Your task to perform on an android device: Search for "asus zenbook" on bestbuy.com, select the first entry, add it to the cart, then select checkout. Image 0: 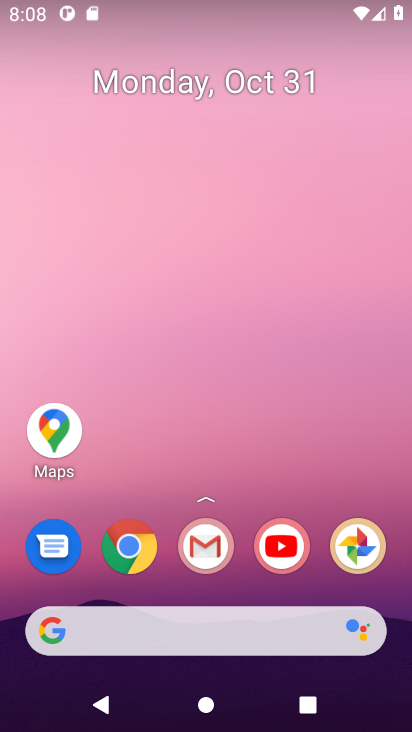
Step 0: click (128, 545)
Your task to perform on an android device: Search for "asus zenbook" on bestbuy.com, select the first entry, add it to the cart, then select checkout. Image 1: 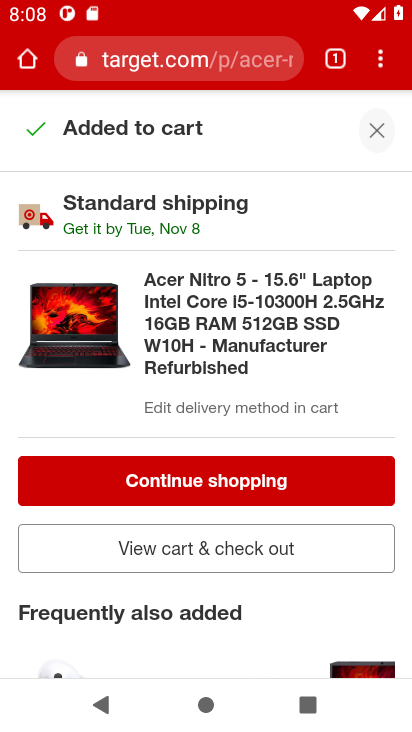
Step 1: click (187, 38)
Your task to perform on an android device: Search for "asus zenbook" on bestbuy.com, select the first entry, add it to the cart, then select checkout. Image 2: 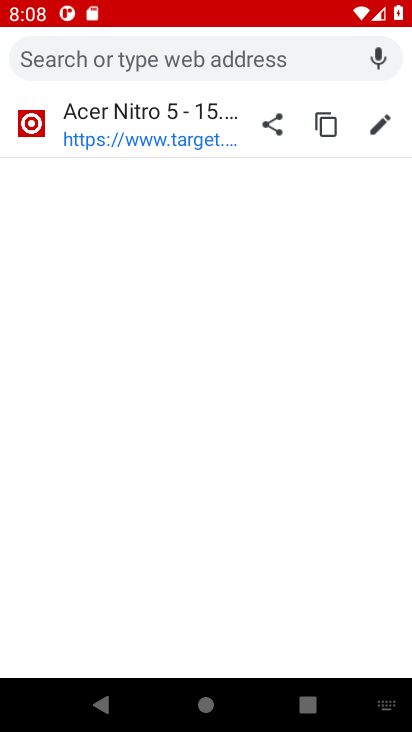
Step 2: type "bestbuy.com"
Your task to perform on an android device: Search for "asus zenbook" on bestbuy.com, select the first entry, add it to the cart, then select checkout. Image 3: 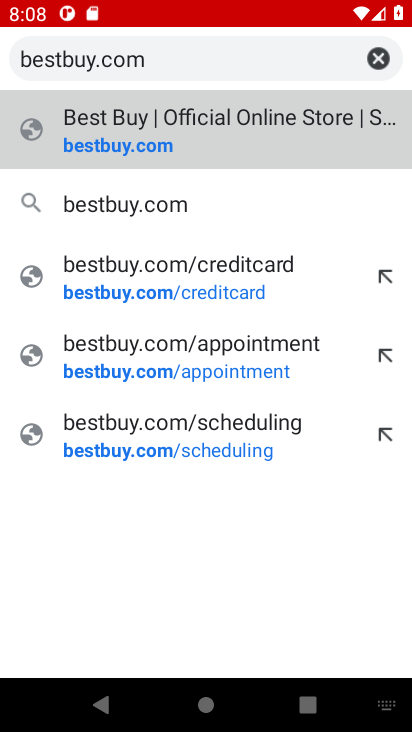
Step 3: click (102, 129)
Your task to perform on an android device: Search for "asus zenbook" on bestbuy.com, select the first entry, add it to the cart, then select checkout. Image 4: 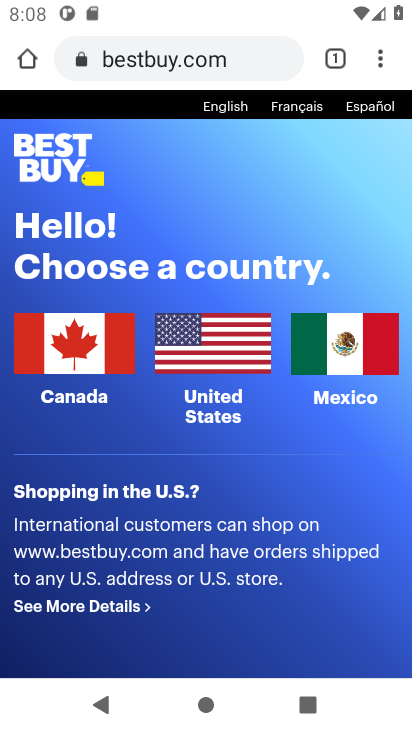
Step 4: click (220, 342)
Your task to perform on an android device: Search for "asus zenbook" on bestbuy.com, select the first entry, add it to the cart, then select checkout. Image 5: 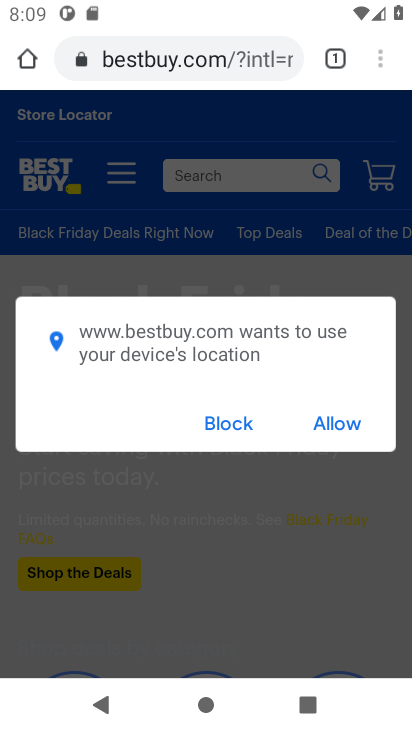
Step 5: click (332, 422)
Your task to perform on an android device: Search for "asus zenbook" on bestbuy.com, select the first entry, add it to the cart, then select checkout. Image 6: 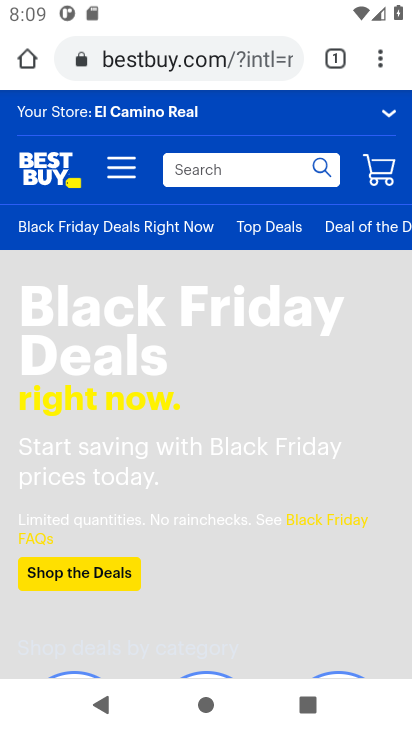
Step 6: click (211, 162)
Your task to perform on an android device: Search for "asus zenbook" on bestbuy.com, select the first entry, add it to the cart, then select checkout. Image 7: 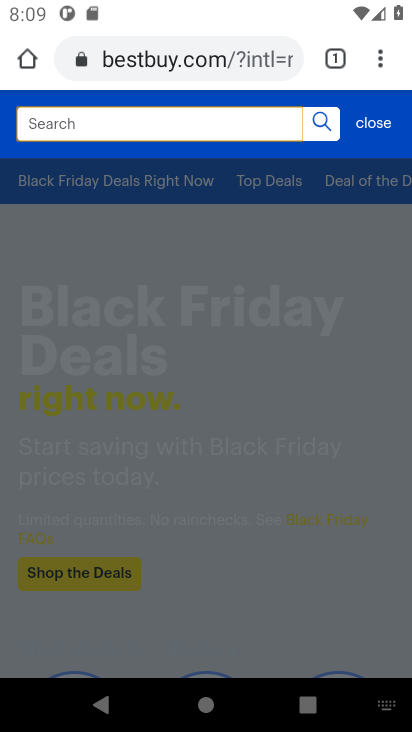
Step 7: type "asus zenbook"
Your task to perform on an android device: Search for "asus zenbook" on bestbuy.com, select the first entry, add it to the cart, then select checkout. Image 8: 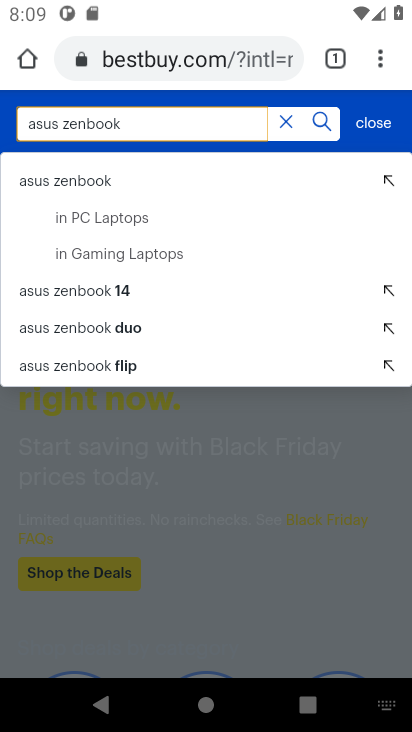
Step 8: click (65, 177)
Your task to perform on an android device: Search for "asus zenbook" on bestbuy.com, select the first entry, add it to the cart, then select checkout. Image 9: 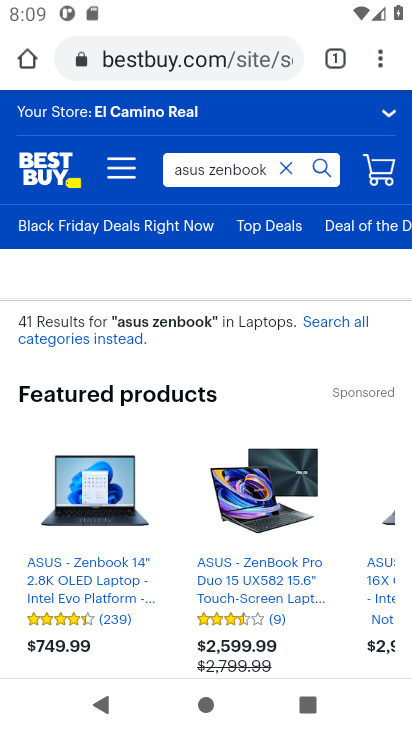
Step 9: drag from (349, 651) to (276, 240)
Your task to perform on an android device: Search for "asus zenbook" on bestbuy.com, select the first entry, add it to the cart, then select checkout. Image 10: 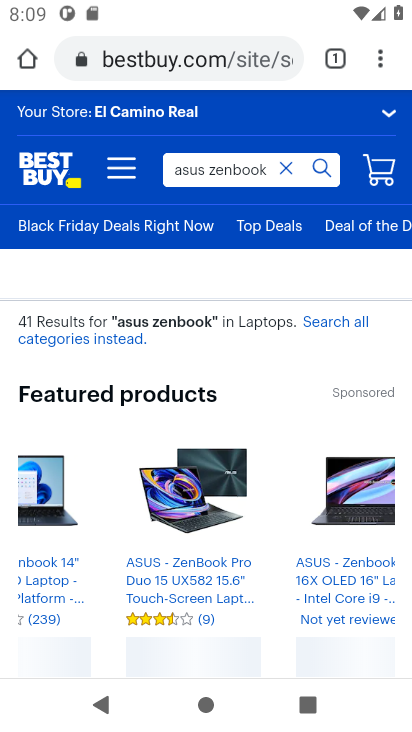
Step 10: drag from (270, 657) to (235, 139)
Your task to perform on an android device: Search for "asus zenbook" on bestbuy.com, select the first entry, add it to the cart, then select checkout. Image 11: 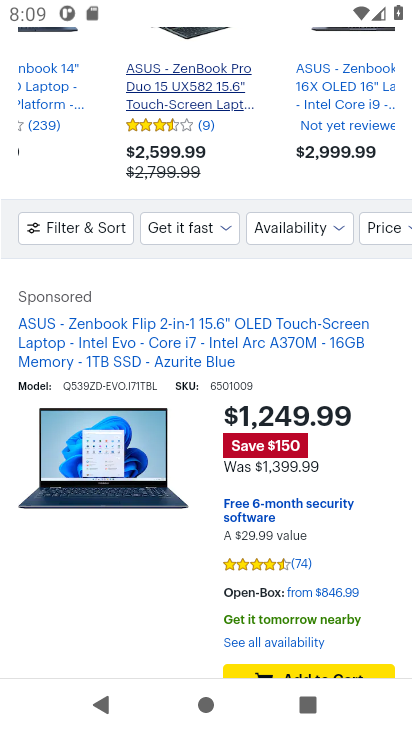
Step 11: drag from (198, 625) to (194, 335)
Your task to perform on an android device: Search for "asus zenbook" on bestbuy.com, select the first entry, add it to the cart, then select checkout. Image 12: 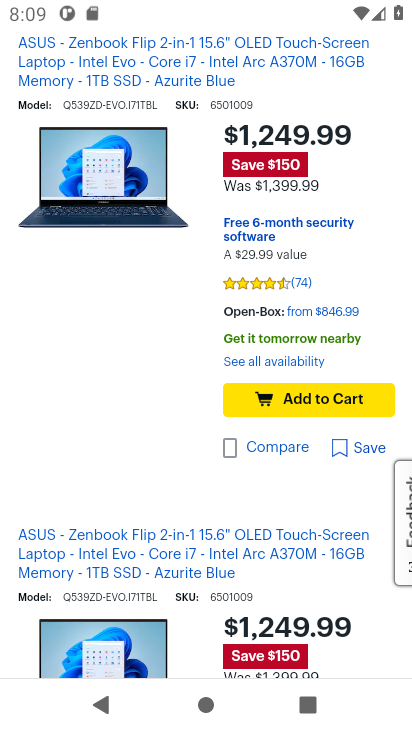
Step 12: click (306, 396)
Your task to perform on an android device: Search for "asus zenbook" on bestbuy.com, select the first entry, add it to the cart, then select checkout. Image 13: 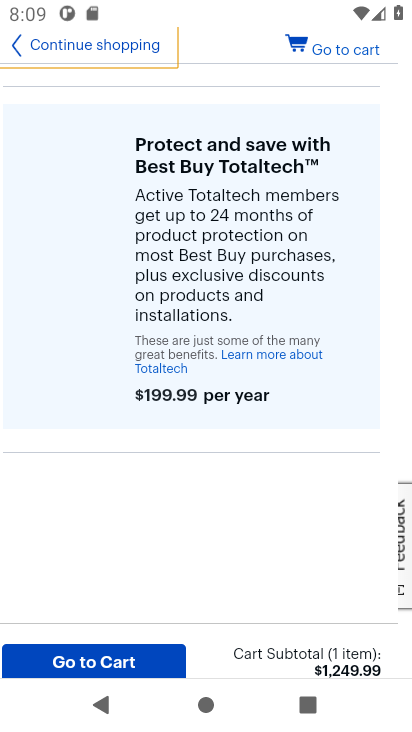
Step 13: click (345, 49)
Your task to perform on an android device: Search for "asus zenbook" on bestbuy.com, select the first entry, add it to the cart, then select checkout. Image 14: 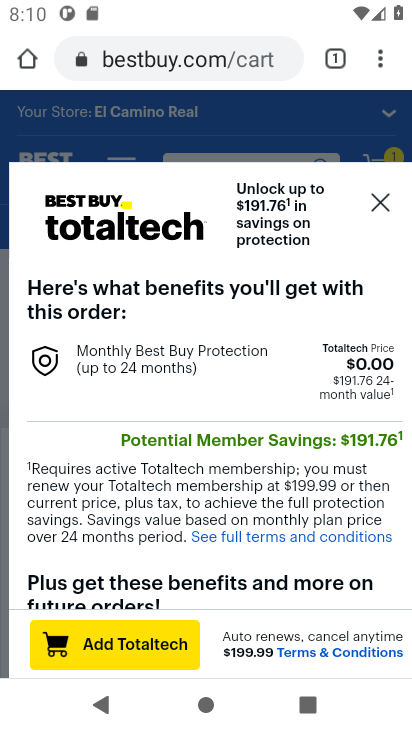
Step 14: drag from (332, 615) to (313, 428)
Your task to perform on an android device: Search for "asus zenbook" on bestbuy.com, select the first entry, add it to the cart, then select checkout. Image 15: 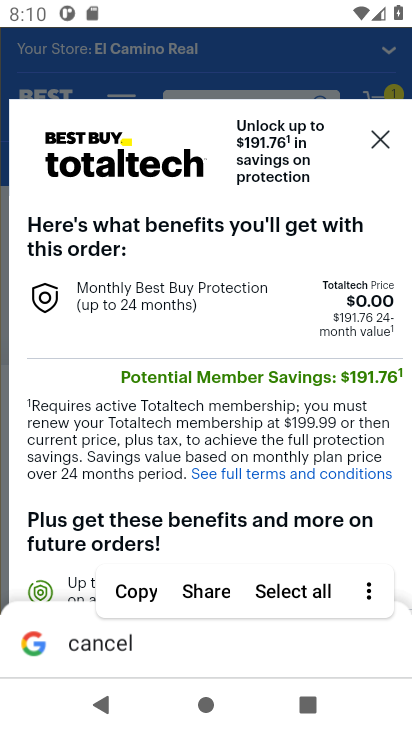
Step 15: click (378, 134)
Your task to perform on an android device: Search for "asus zenbook" on bestbuy.com, select the first entry, add it to the cart, then select checkout. Image 16: 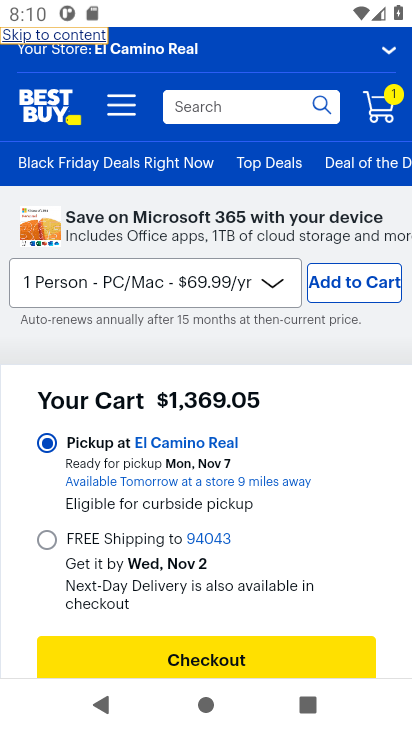
Step 16: click (196, 653)
Your task to perform on an android device: Search for "asus zenbook" on bestbuy.com, select the first entry, add it to the cart, then select checkout. Image 17: 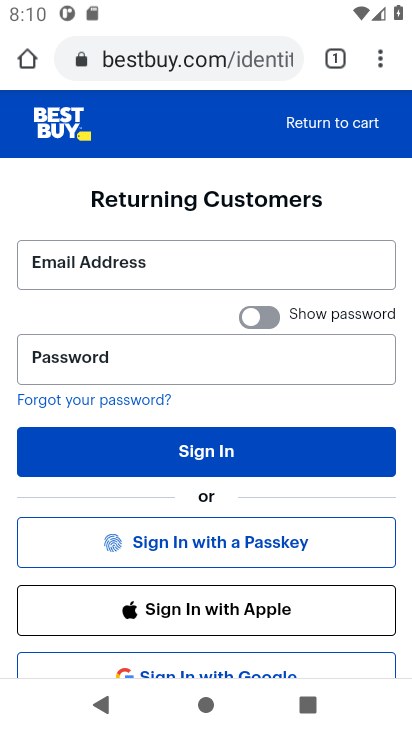
Step 17: task complete